Your task to perform on an android device: change text size in settings app Image 0: 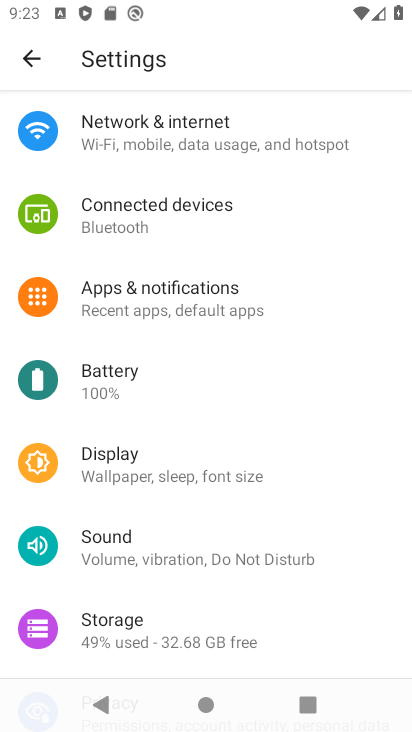
Step 0: click (226, 492)
Your task to perform on an android device: change text size in settings app Image 1: 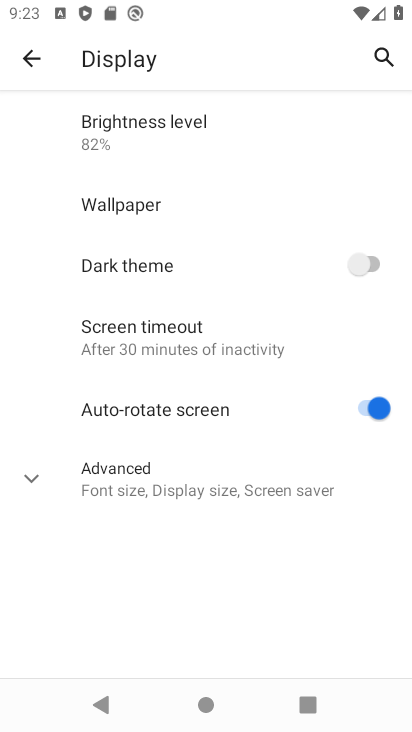
Step 1: click (226, 492)
Your task to perform on an android device: change text size in settings app Image 2: 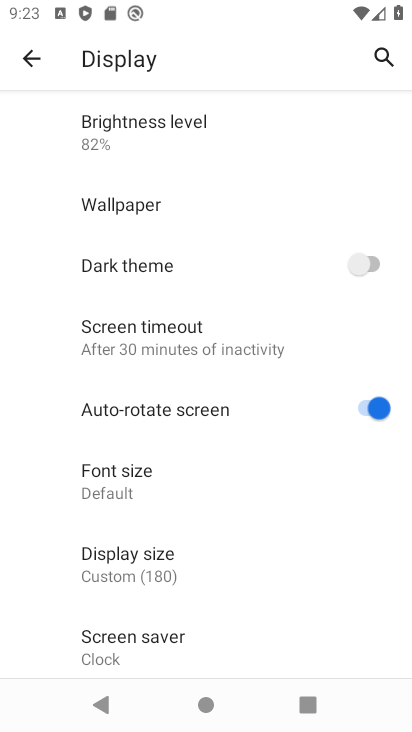
Step 2: click (189, 487)
Your task to perform on an android device: change text size in settings app Image 3: 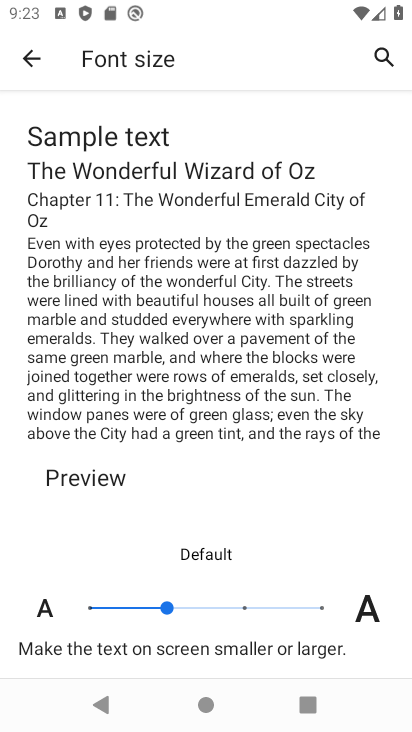
Step 3: click (90, 607)
Your task to perform on an android device: change text size in settings app Image 4: 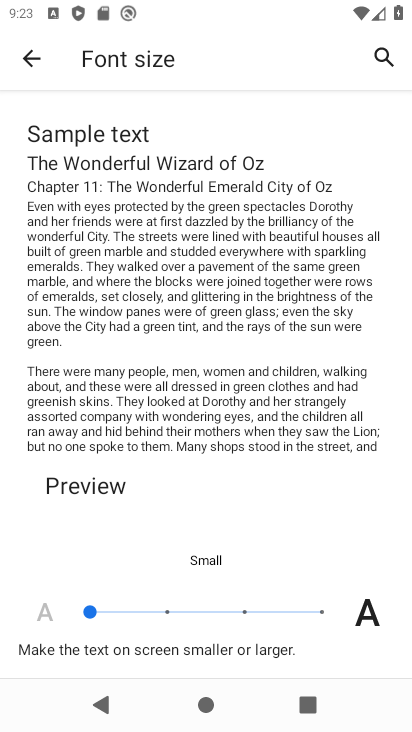
Step 4: task complete